Your task to perform on an android device: Open accessibility settings Image 0: 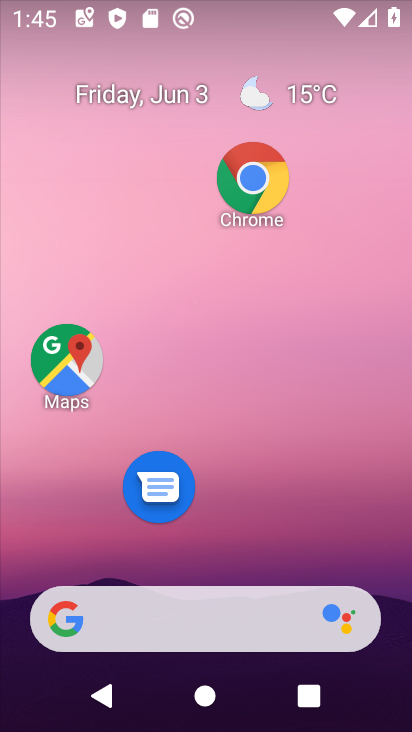
Step 0: drag from (256, 475) to (283, 153)
Your task to perform on an android device: Open accessibility settings Image 1: 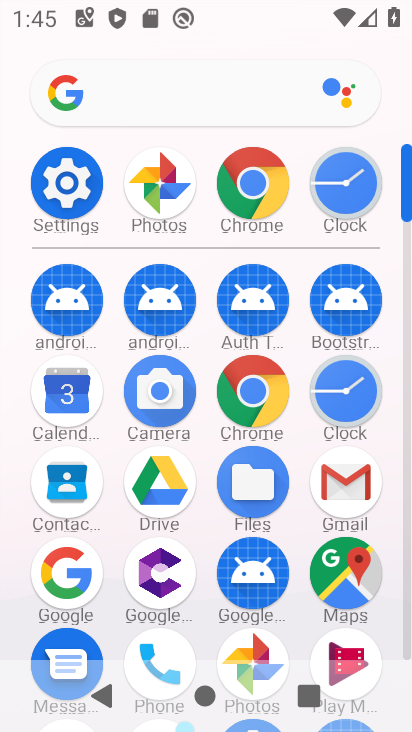
Step 1: drag from (202, 609) to (215, 291)
Your task to perform on an android device: Open accessibility settings Image 2: 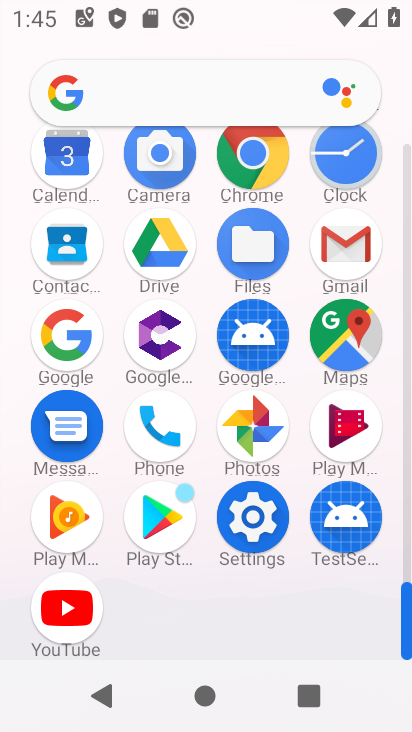
Step 2: click (237, 508)
Your task to perform on an android device: Open accessibility settings Image 3: 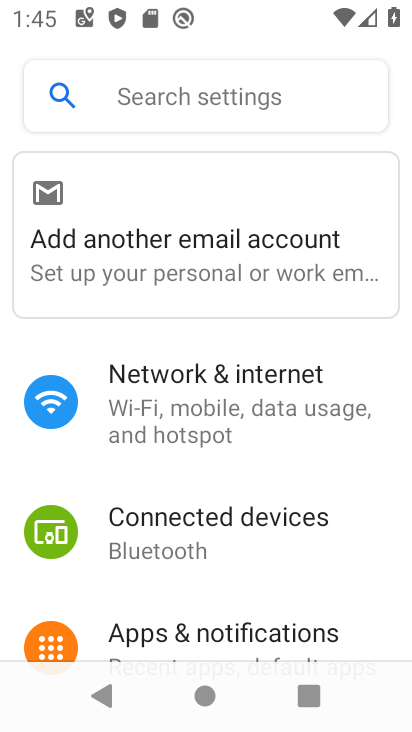
Step 3: drag from (229, 600) to (253, 416)
Your task to perform on an android device: Open accessibility settings Image 4: 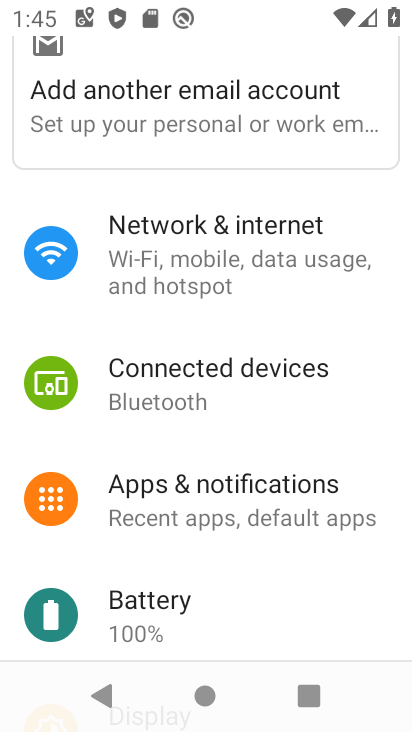
Step 4: drag from (209, 620) to (233, 301)
Your task to perform on an android device: Open accessibility settings Image 5: 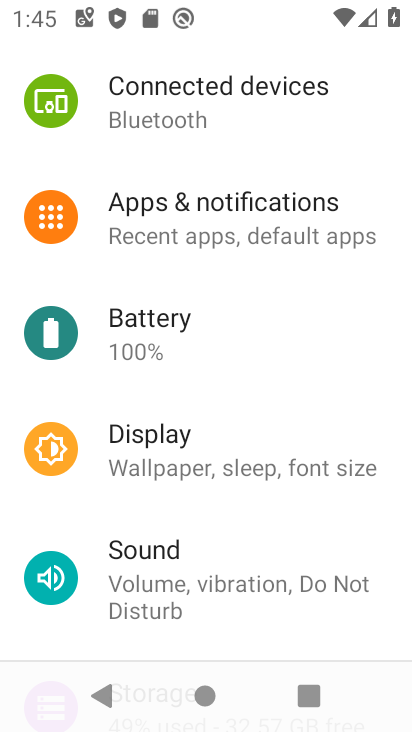
Step 5: drag from (182, 536) to (219, 248)
Your task to perform on an android device: Open accessibility settings Image 6: 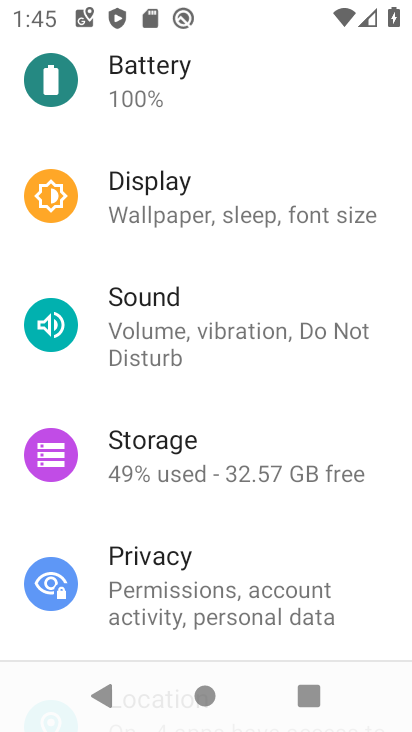
Step 6: drag from (170, 437) to (196, 219)
Your task to perform on an android device: Open accessibility settings Image 7: 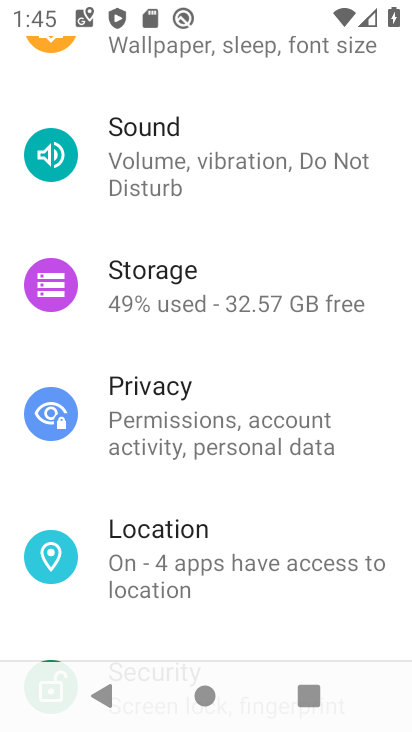
Step 7: drag from (155, 444) to (198, 234)
Your task to perform on an android device: Open accessibility settings Image 8: 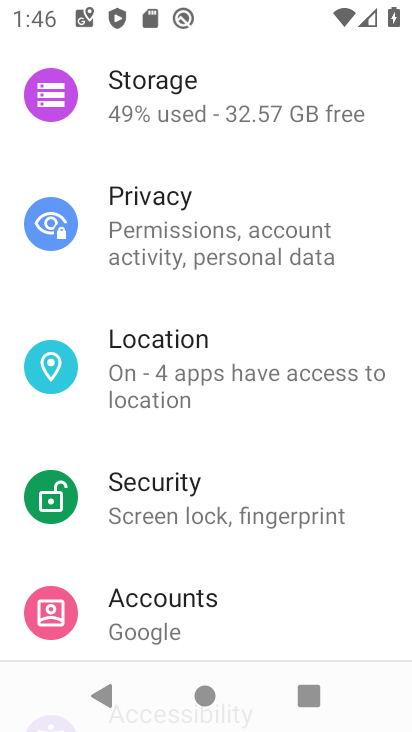
Step 8: drag from (213, 649) to (252, 257)
Your task to perform on an android device: Open accessibility settings Image 9: 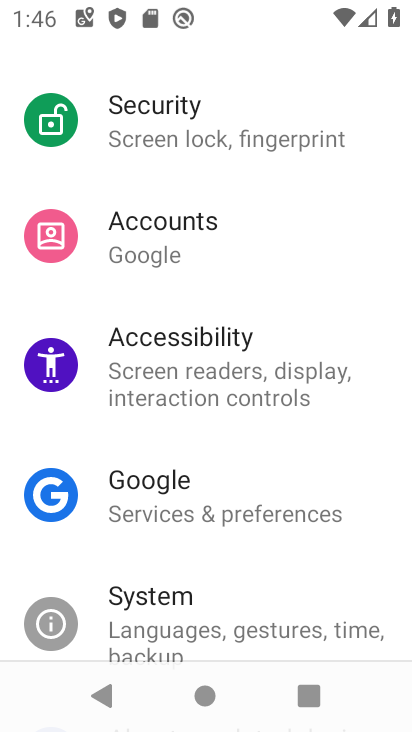
Step 9: click (235, 362)
Your task to perform on an android device: Open accessibility settings Image 10: 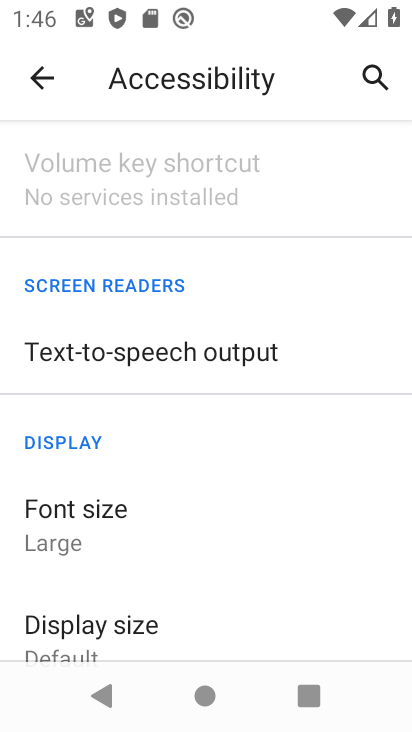
Step 10: task complete